Your task to perform on an android device: toggle wifi Image 0: 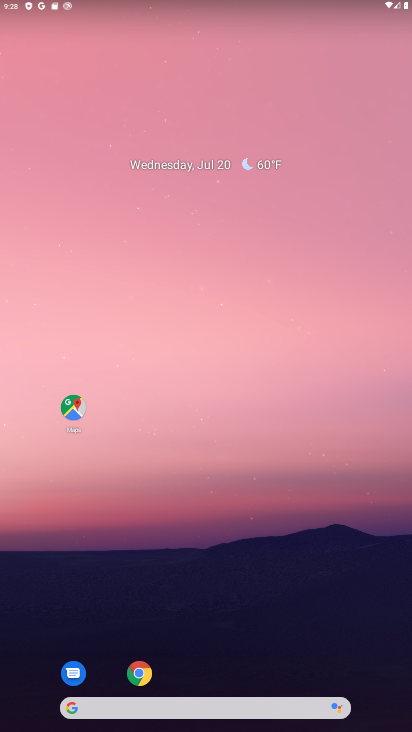
Step 0: click (177, 318)
Your task to perform on an android device: toggle wifi Image 1: 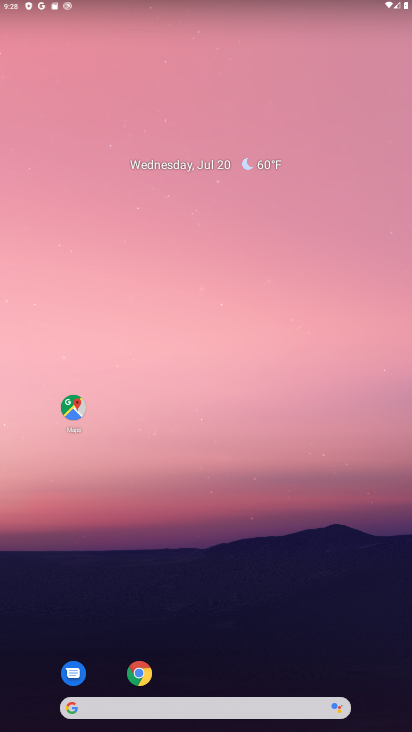
Step 1: drag from (181, 584) to (205, 358)
Your task to perform on an android device: toggle wifi Image 2: 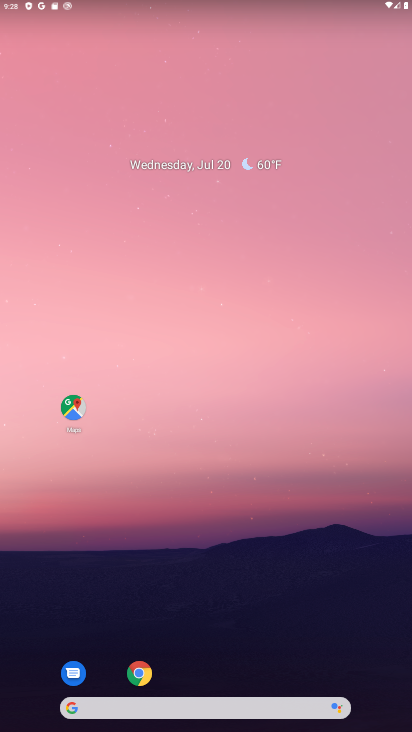
Step 2: drag from (184, 220) to (148, 113)
Your task to perform on an android device: toggle wifi Image 3: 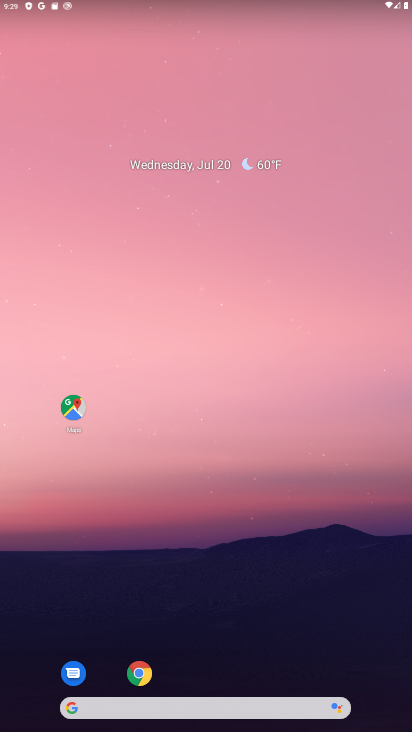
Step 3: drag from (180, 541) to (340, 16)
Your task to perform on an android device: toggle wifi Image 4: 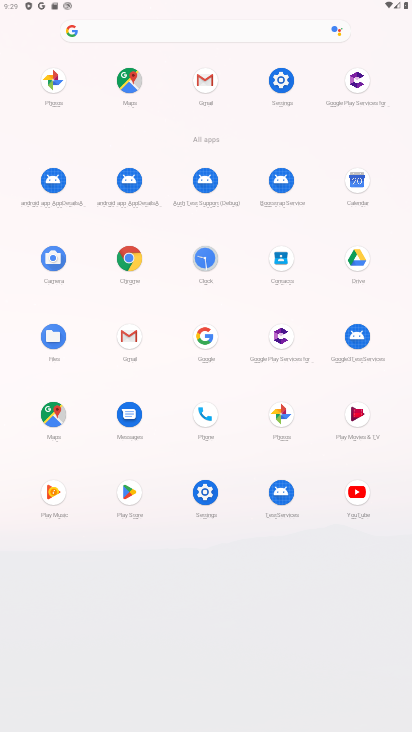
Step 4: click (276, 80)
Your task to perform on an android device: toggle wifi Image 5: 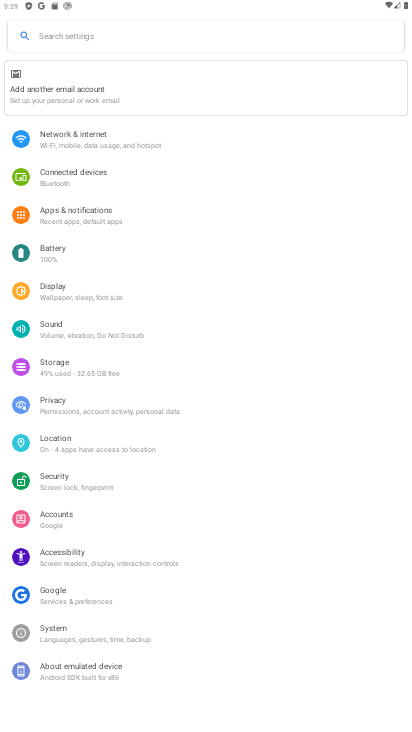
Step 5: click (129, 138)
Your task to perform on an android device: toggle wifi Image 6: 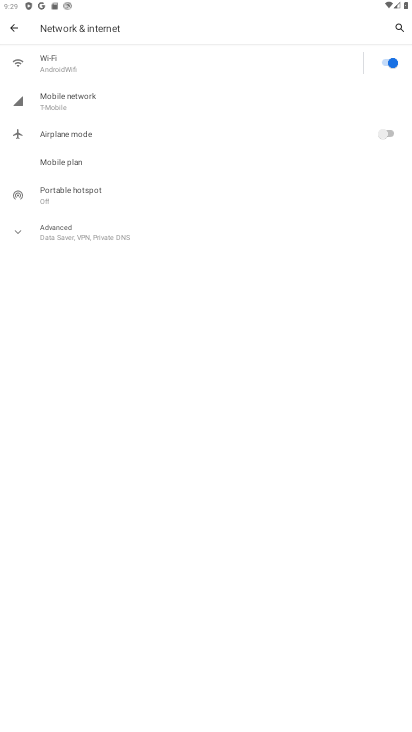
Step 6: click (383, 69)
Your task to perform on an android device: toggle wifi Image 7: 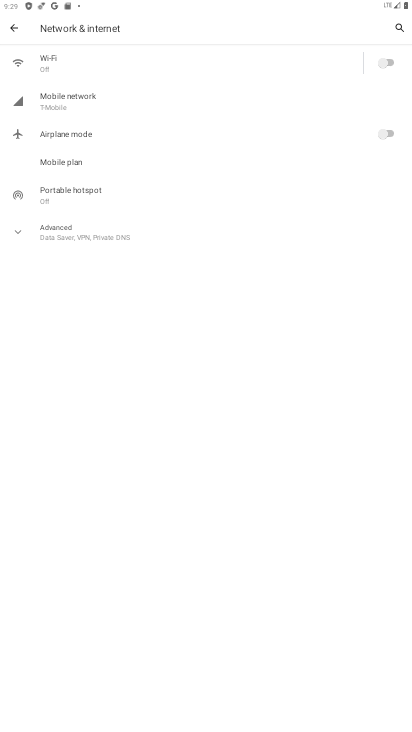
Step 7: task complete